Your task to perform on an android device: check out phone information Image 0: 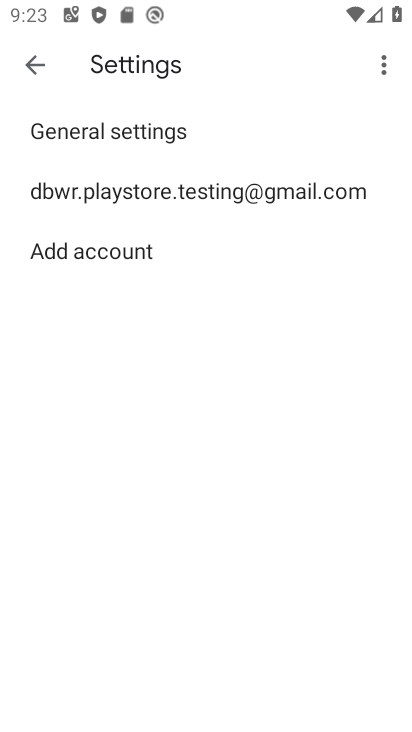
Step 0: press home button
Your task to perform on an android device: check out phone information Image 1: 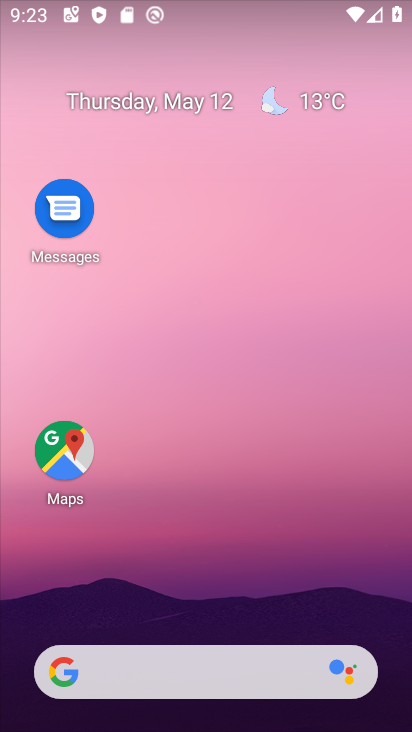
Step 1: drag from (229, 643) to (245, 0)
Your task to perform on an android device: check out phone information Image 2: 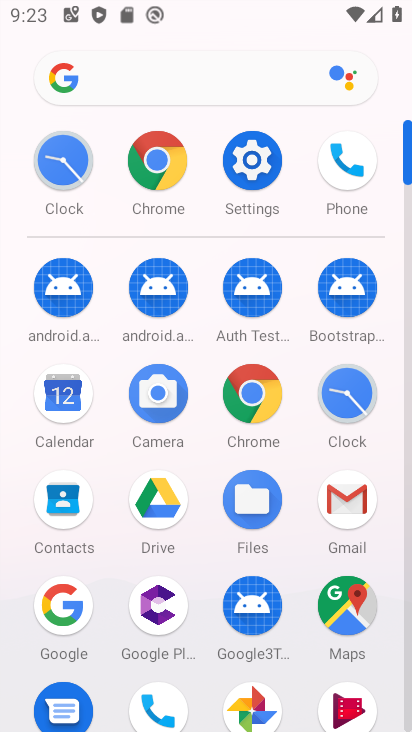
Step 2: click (258, 167)
Your task to perform on an android device: check out phone information Image 3: 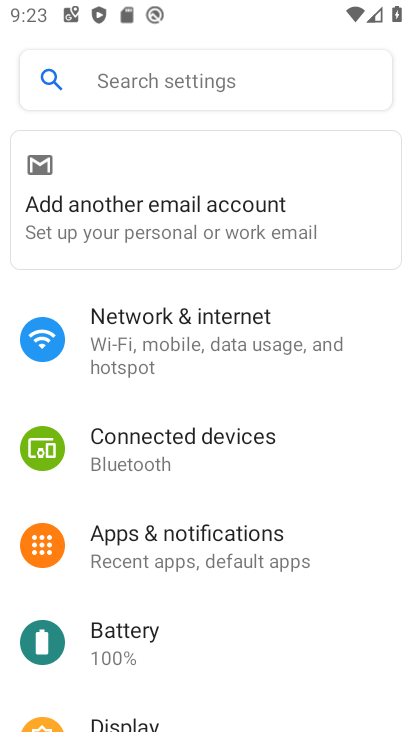
Step 3: task complete